Your task to perform on an android device: open chrome privacy settings Image 0: 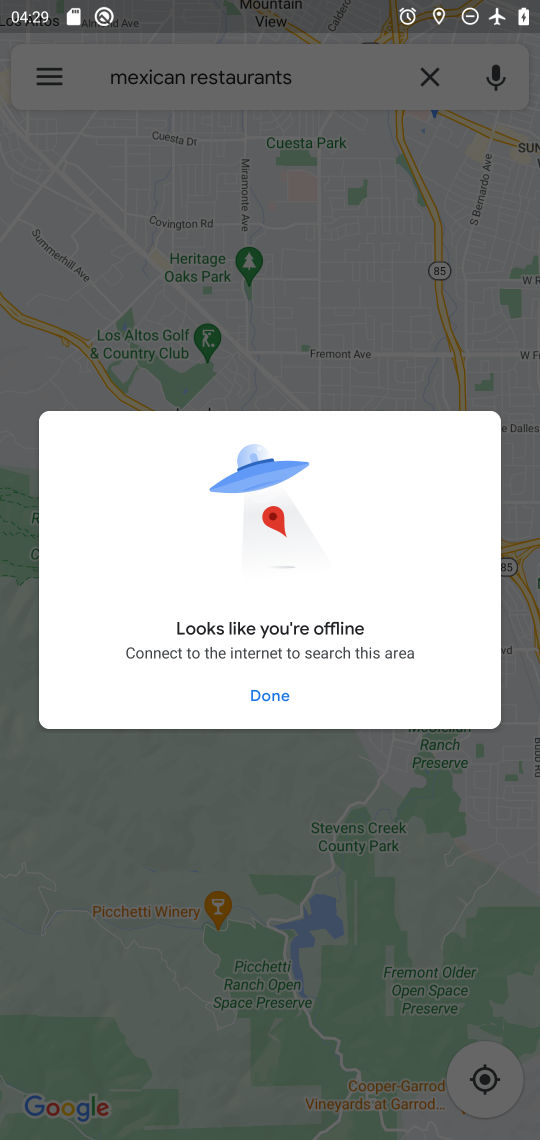
Step 0: press home button
Your task to perform on an android device: open chrome privacy settings Image 1: 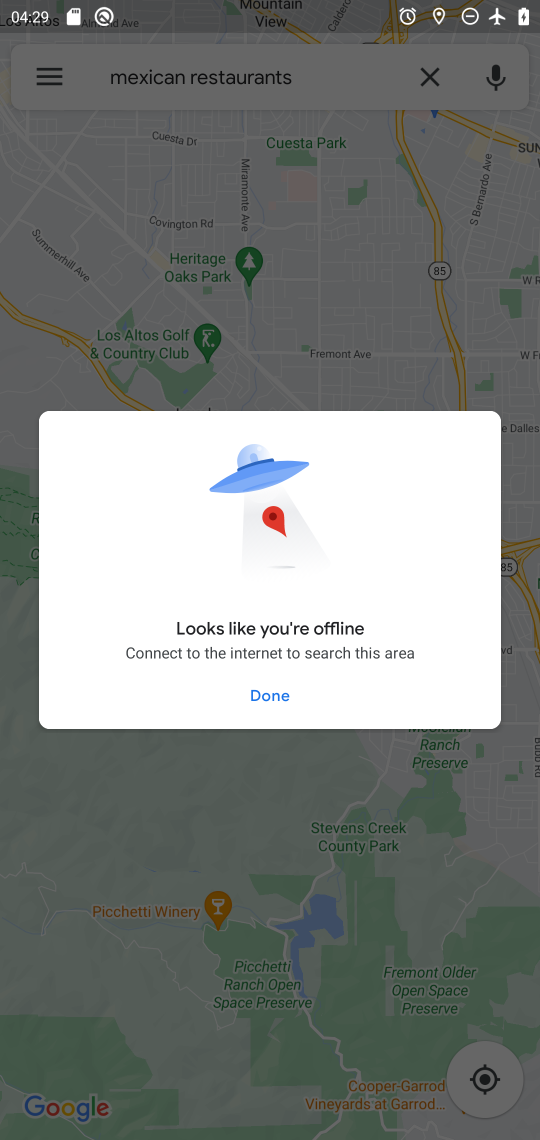
Step 1: press home button
Your task to perform on an android device: open chrome privacy settings Image 2: 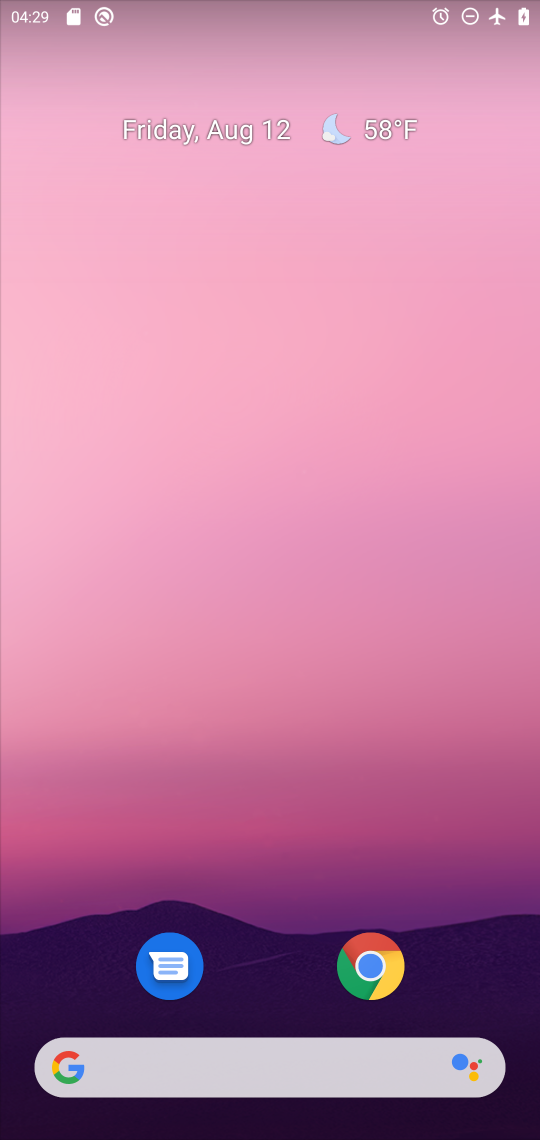
Step 2: drag from (290, 928) to (469, 4)
Your task to perform on an android device: open chrome privacy settings Image 3: 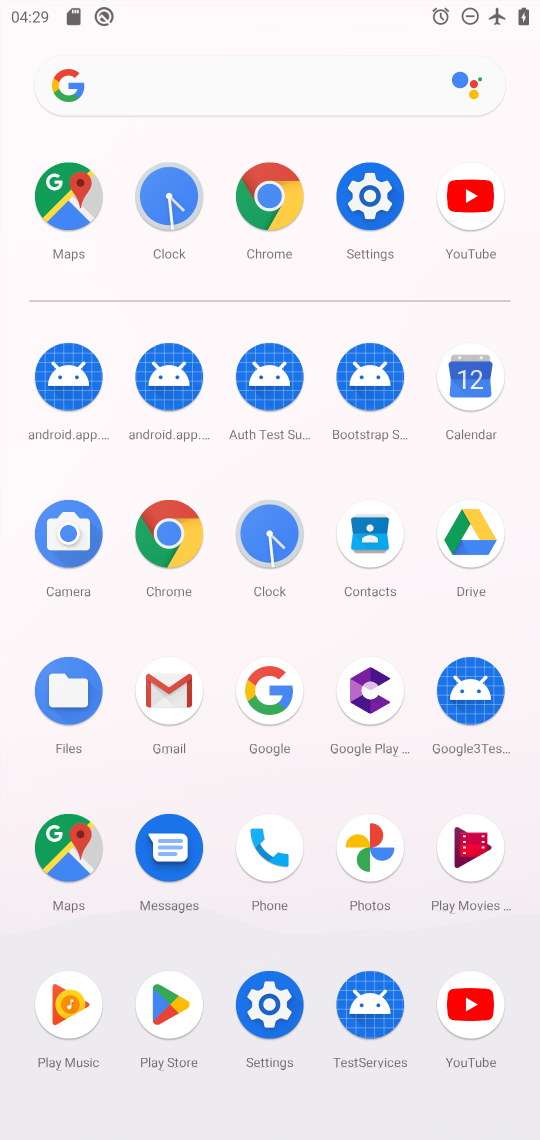
Step 3: click (168, 543)
Your task to perform on an android device: open chrome privacy settings Image 4: 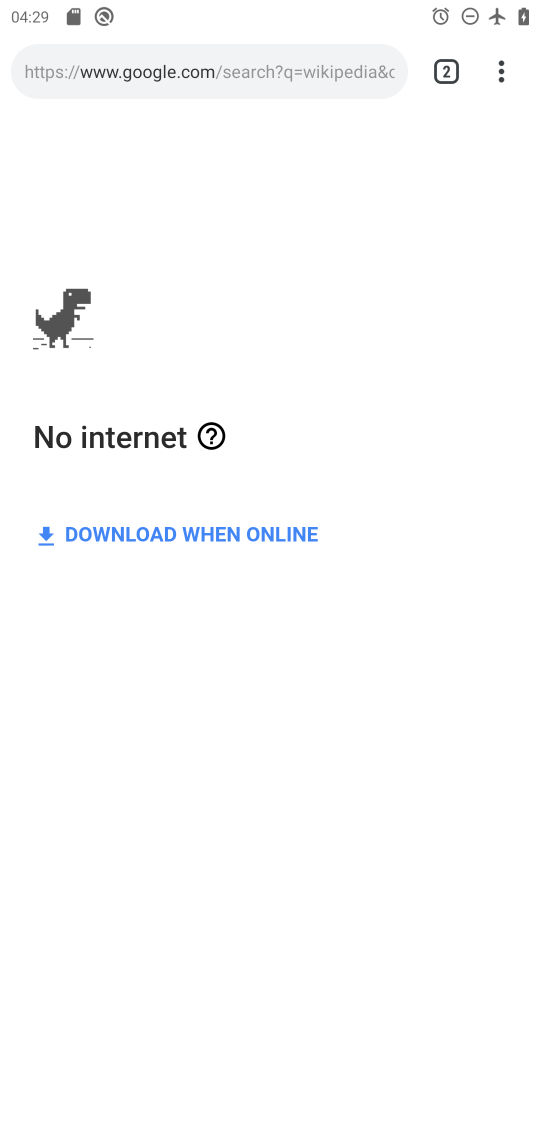
Step 4: drag from (516, 55) to (268, 786)
Your task to perform on an android device: open chrome privacy settings Image 5: 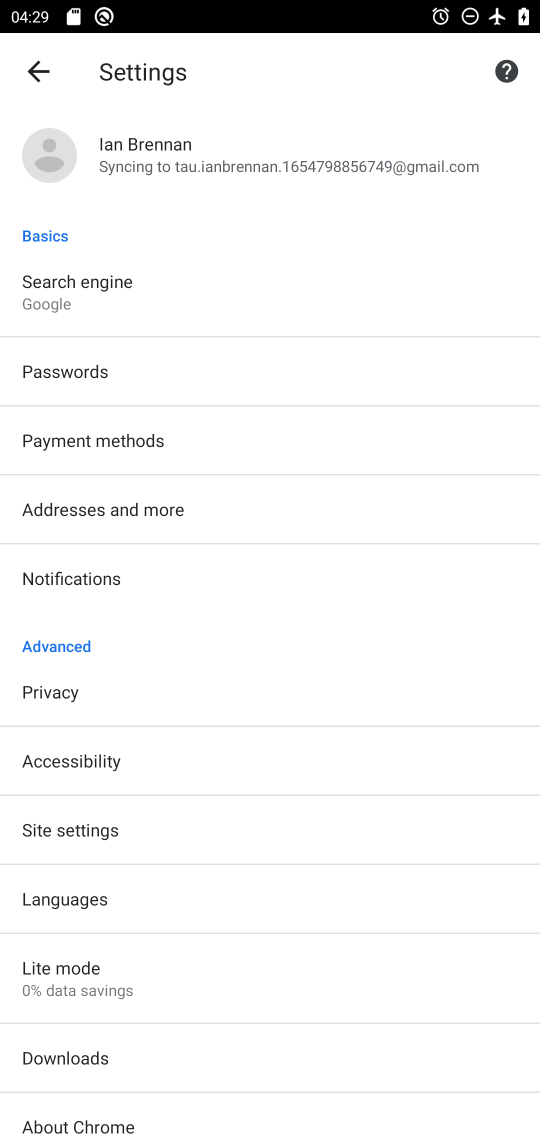
Step 5: click (123, 693)
Your task to perform on an android device: open chrome privacy settings Image 6: 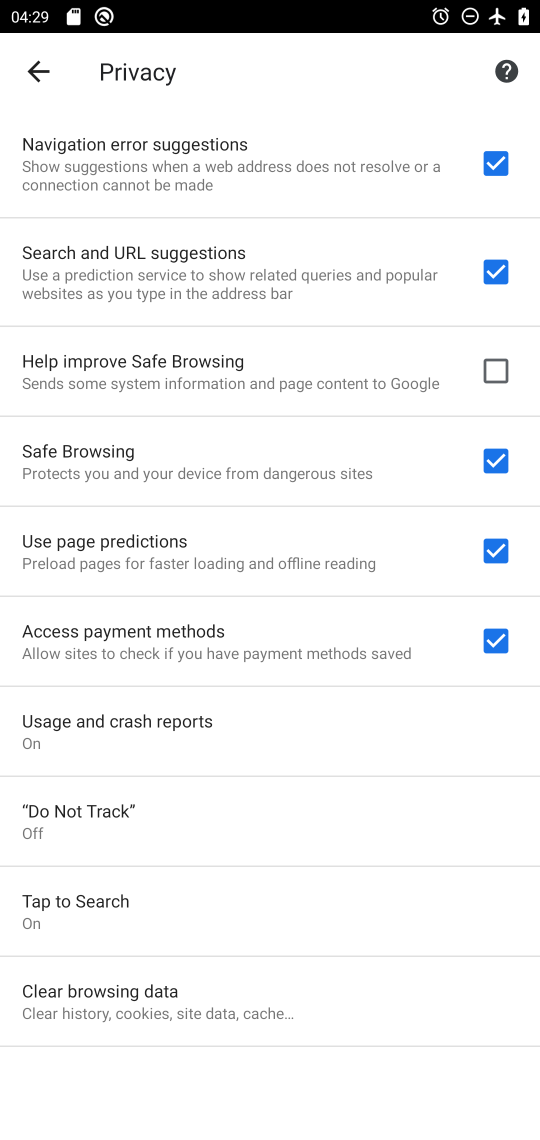
Step 6: task complete